Your task to perform on an android device: open chrome and create a bookmark for the current page Image 0: 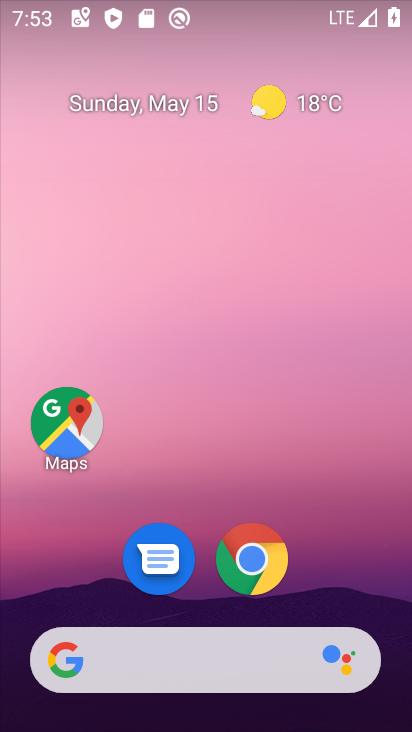
Step 0: click (255, 562)
Your task to perform on an android device: open chrome and create a bookmark for the current page Image 1: 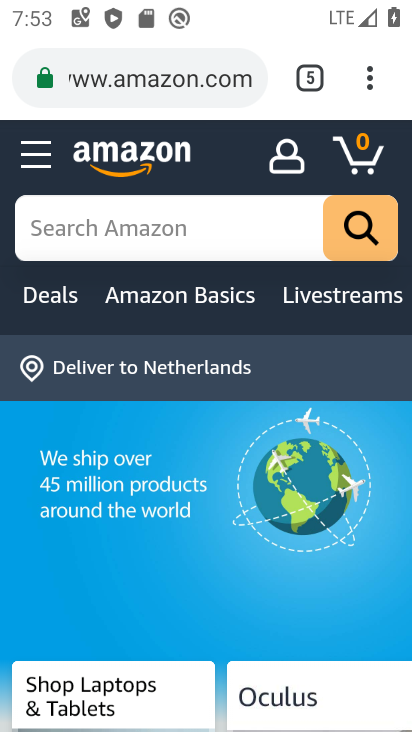
Step 1: click (370, 80)
Your task to perform on an android device: open chrome and create a bookmark for the current page Image 2: 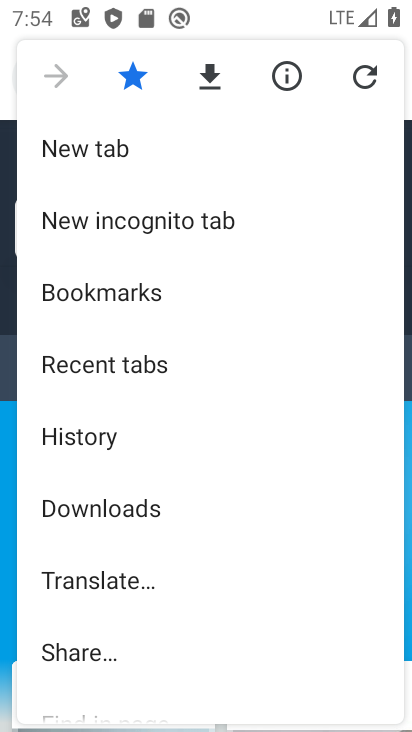
Step 2: task complete